Your task to perform on an android device: Open the stopwatch Image 0: 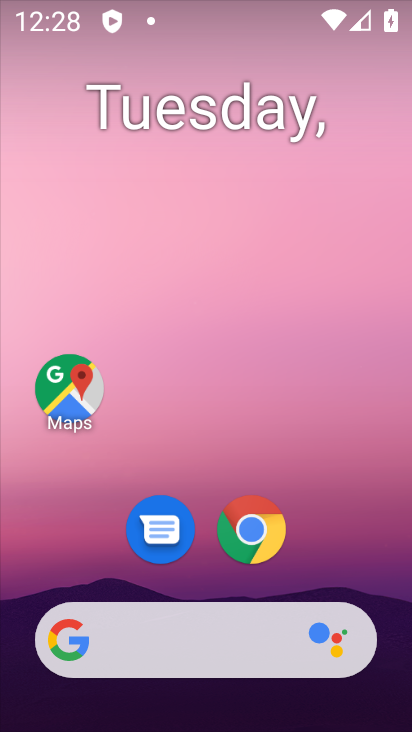
Step 0: drag from (346, 513) to (294, 33)
Your task to perform on an android device: Open the stopwatch Image 1: 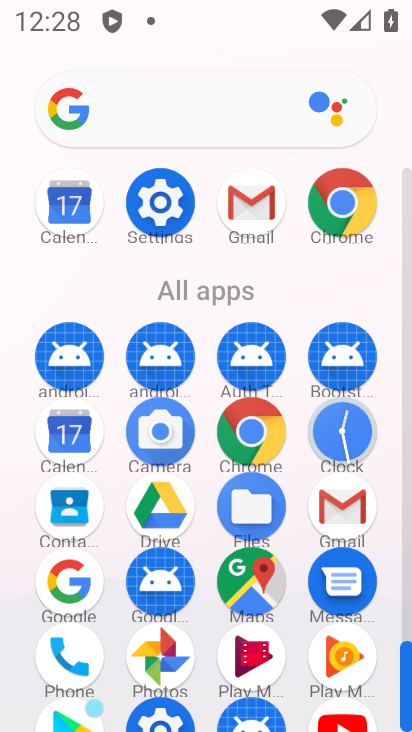
Step 1: click (349, 430)
Your task to perform on an android device: Open the stopwatch Image 2: 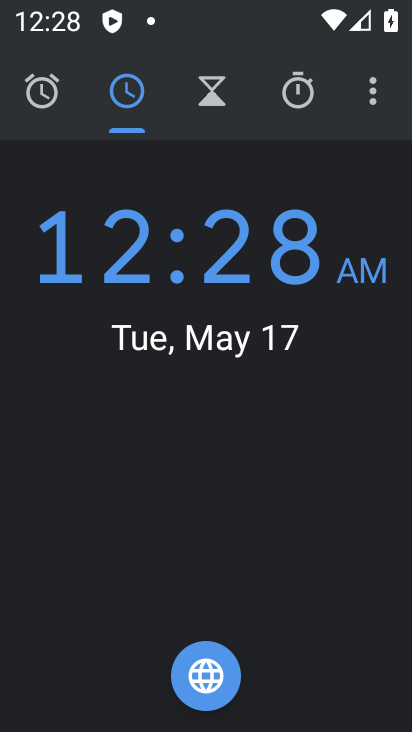
Step 2: click (306, 96)
Your task to perform on an android device: Open the stopwatch Image 3: 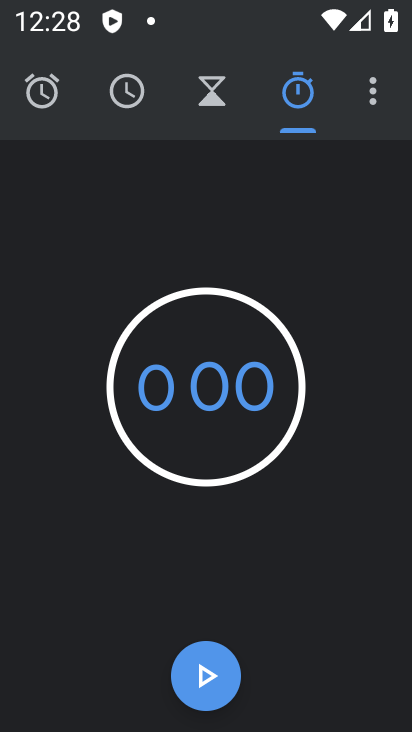
Step 3: click (204, 679)
Your task to perform on an android device: Open the stopwatch Image 4: 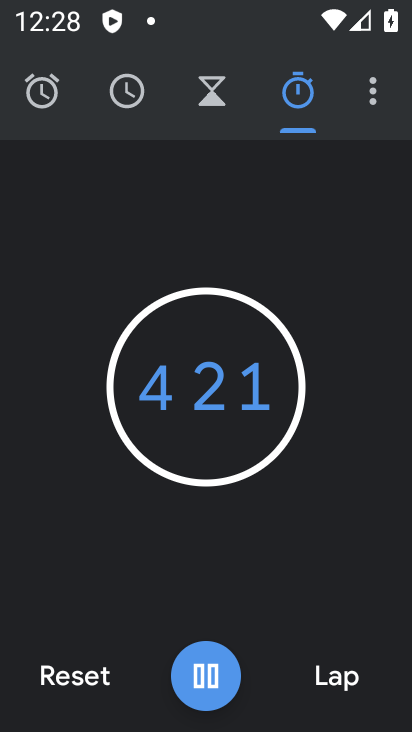
Step 4: task complete